Your task to perform on an android device: Go to internet settings Image 0: 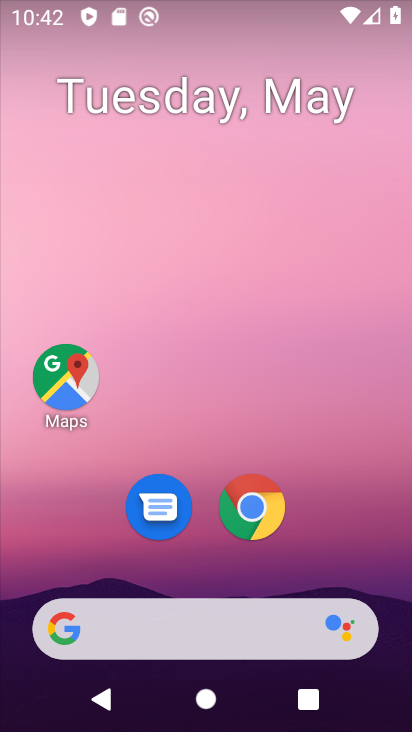
Step 0: drag from (198, 548) to (144, 195)
Your task to perform on an android device: Go to internet settings Image 1: 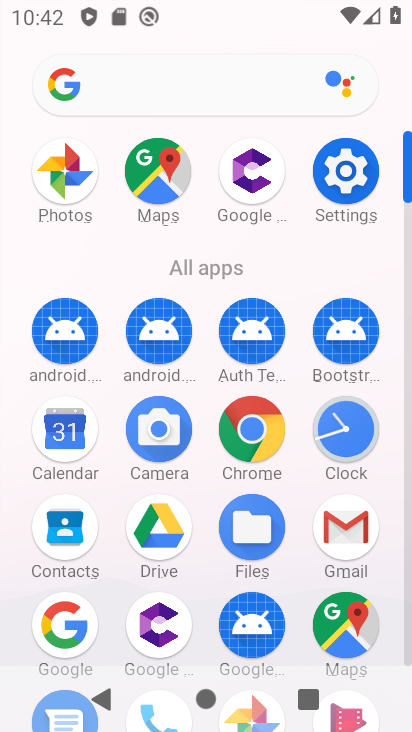
Step 1: click (338, 165)
Your task to perform on an android device: Go to internet settings Image 2: 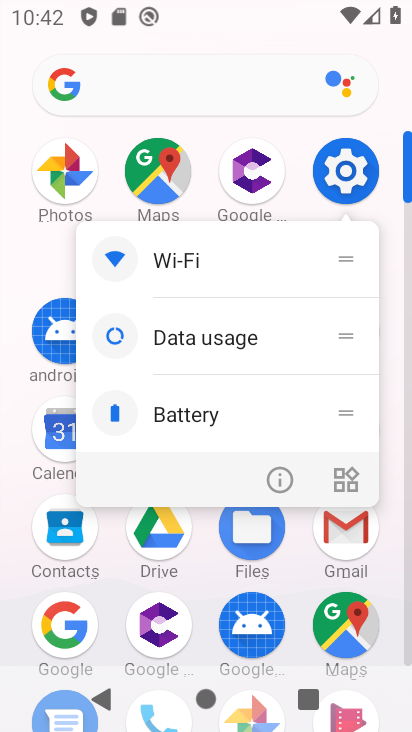
Step 2: click (340, 167)
Your task to perform on an android device: Go to internet settings Image 3: 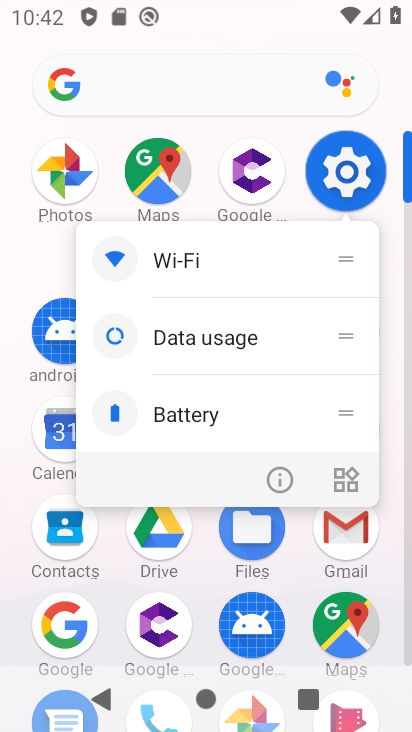
Step 3: click (341, 168)
Your task to perform on an android device: Go to internet settings Image 4: 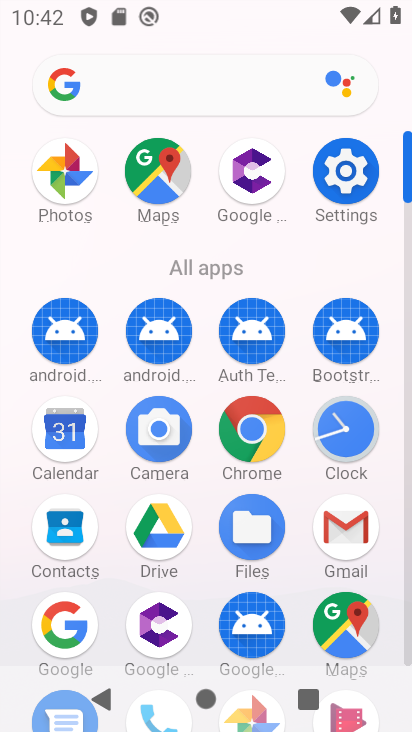
Step 4: click (341, 168)
Your task to perform on an android device: Go to internet settings Image 5: 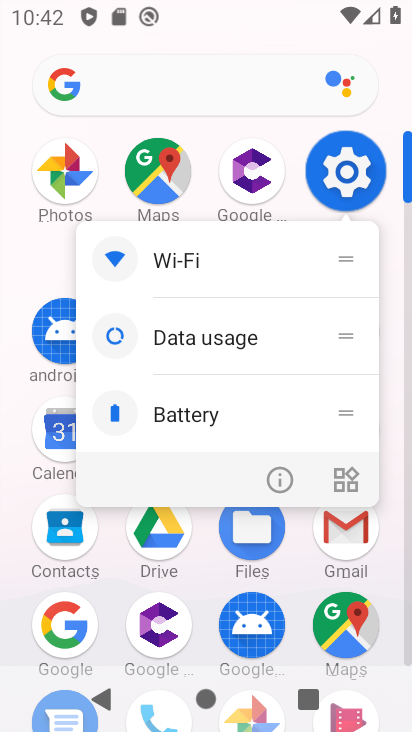
Step 5: click (342, 170)
Your task to perform on an android device: Go to internet settings Image 6: 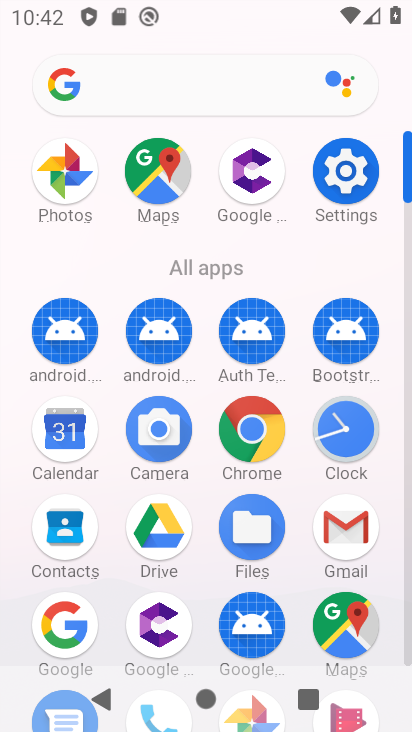
Step 6: click (344, 173)
Your task to perform on an android device: Go to internet settings Image 7: 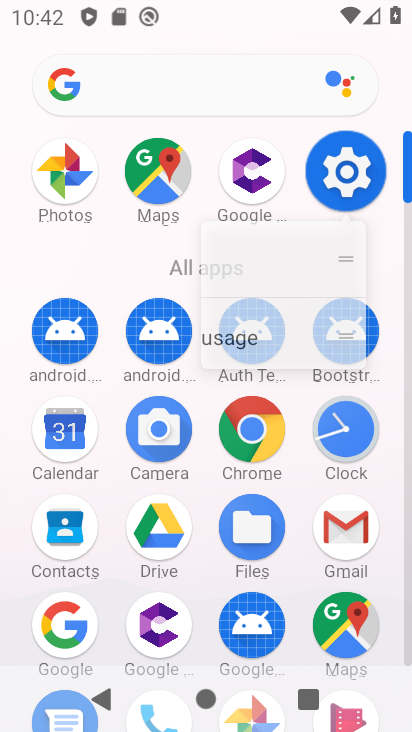
Step 7: click (344, 201)
Your task to perform on an android device: Go to internet settings Image 8: 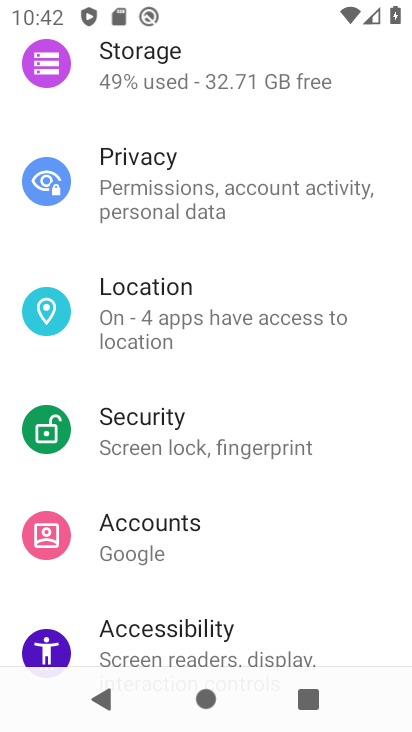
Step 8: click (257, 652)
Your task to perform on an android device: Go to internet settings Image 9: 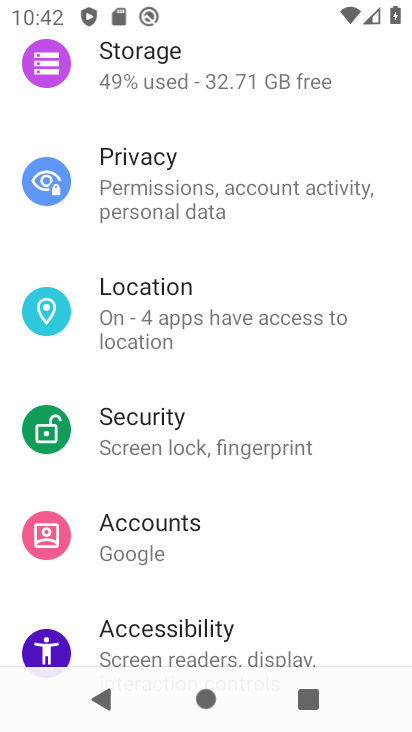
Step 9: drag from (163, 175) to (167, 648)
Your task to perform on an android device: Go to internet settings Image 10: 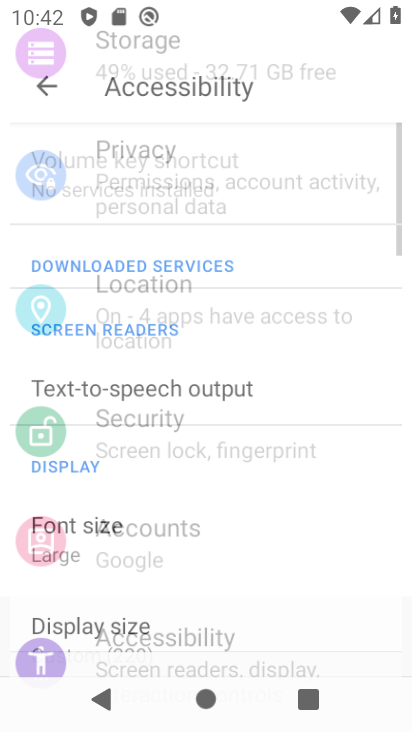
Step 10: drag from (184, 540) to (340, 693)
Your task to perform on an android device: Go to internet settings Image 11: 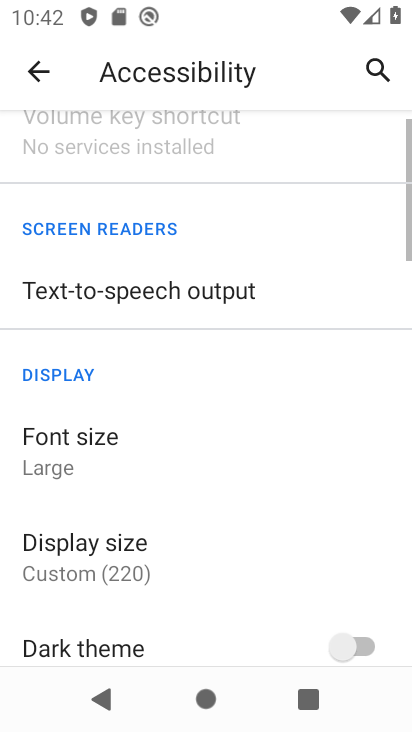
Step 11: drag from (211, 238) to (240, 662)
Your task to perform on an android device: Go to internet settings Image 12: 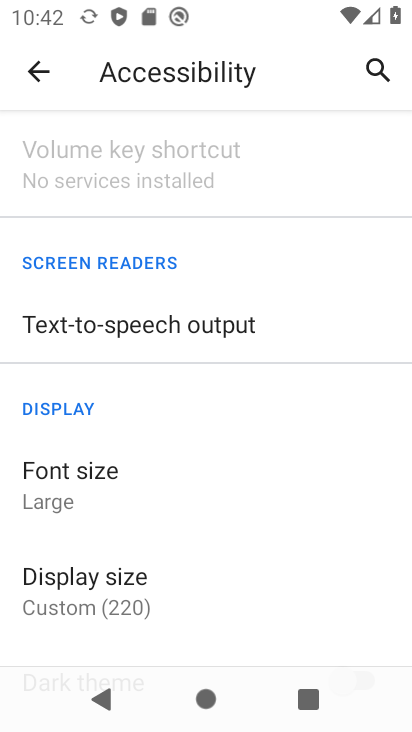
Step 12: click (36, 81)
Your task to perform on an android device: Go to internet settings Image 13: 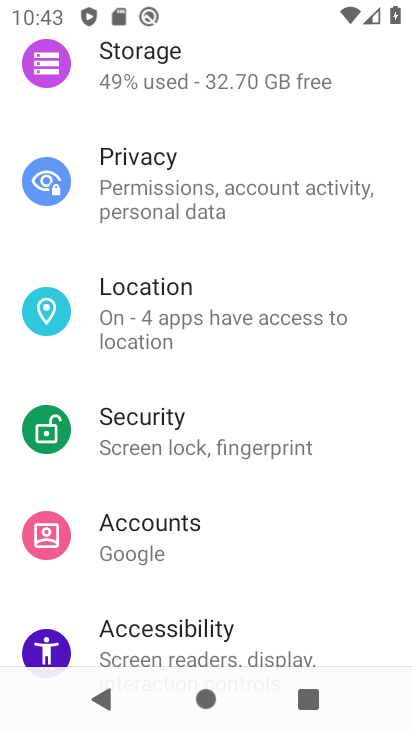
Step 13: drag from (236, 372) to (199, 487)
Your task to perform on an android device: Go to internet settings Image 14: 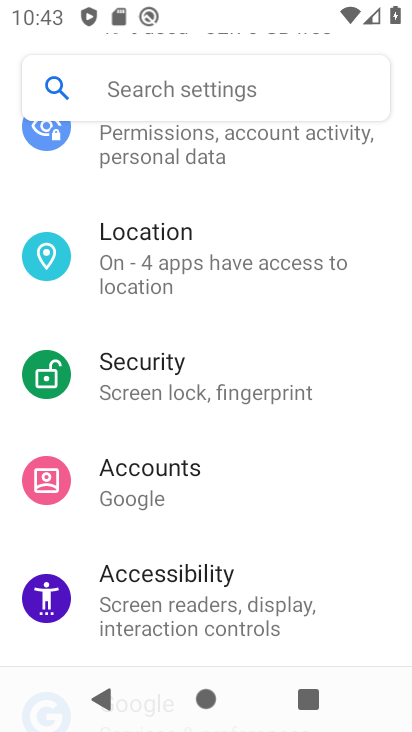
Step 14: drag from (178, 185) to (252, 702)
Your task to perform on an android device: Go to internet settings Image 15: 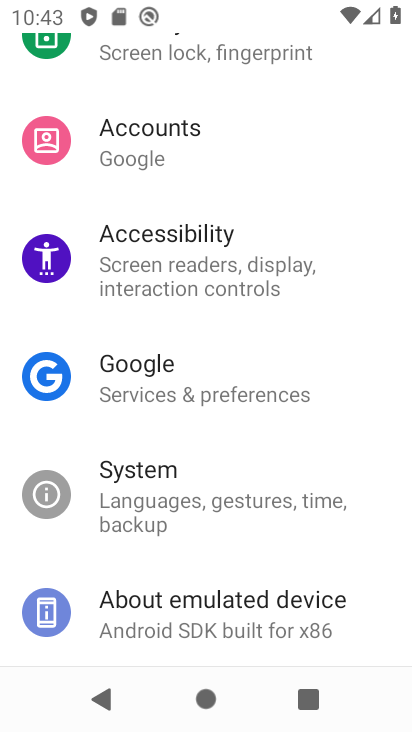
Step 15: drag from (229, 239) to (277, 616)
Your task to perform on an android device: Go to internet settings Image 16: 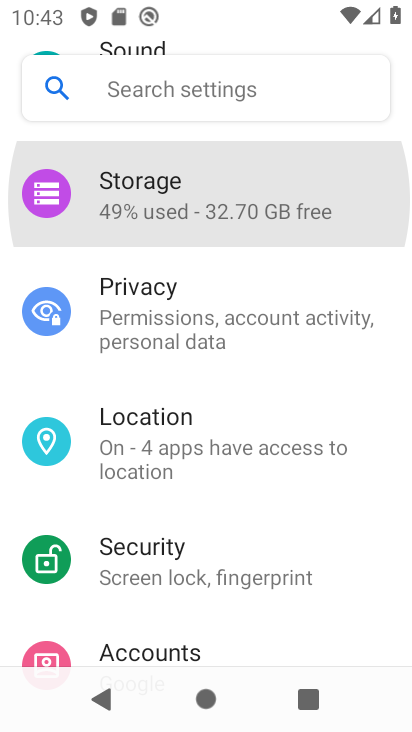
Step 16: drag from (226, 449) to (191, 603)
Your task to perform on an android device: Go to internet settings Image 17: 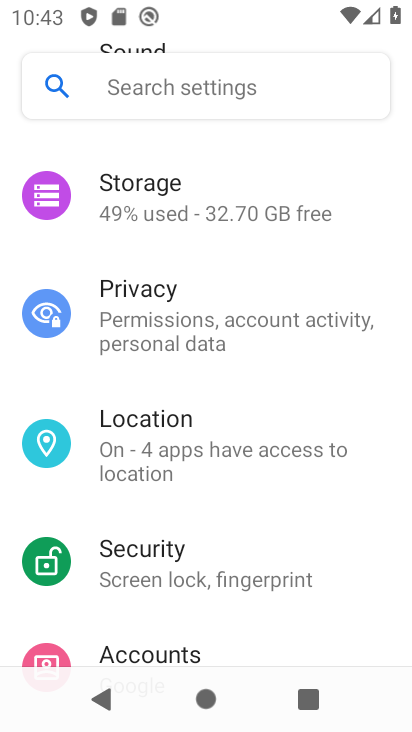
Step 17: drag from (179, 426) to (220, 579)
Your task to perform on an android device: Go to internet settings Image 18: 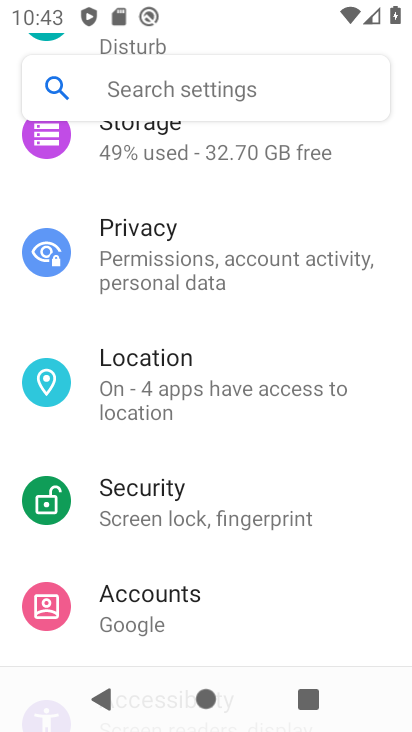
Step 18: drag from (202, 333) to (228, 698)
Your task to perform on an android device: Go to internet settings Image 19: 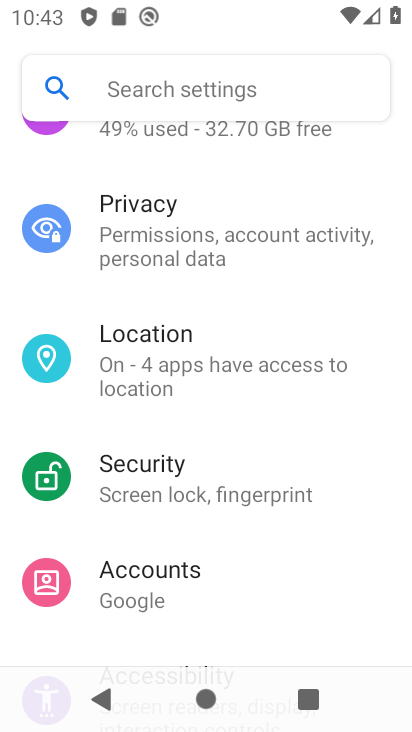
Step 19: drag from (221, 310) to (221, 443)
Your task to perform on an android device: Go to internet settings Image 20: 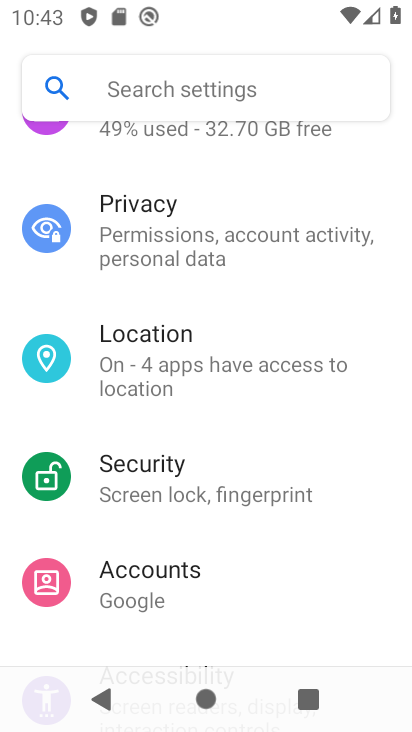
Step 20: drag from (170, 180) to (205, 524)
Your task to perform on an android device: Go to internet settings Image 21: 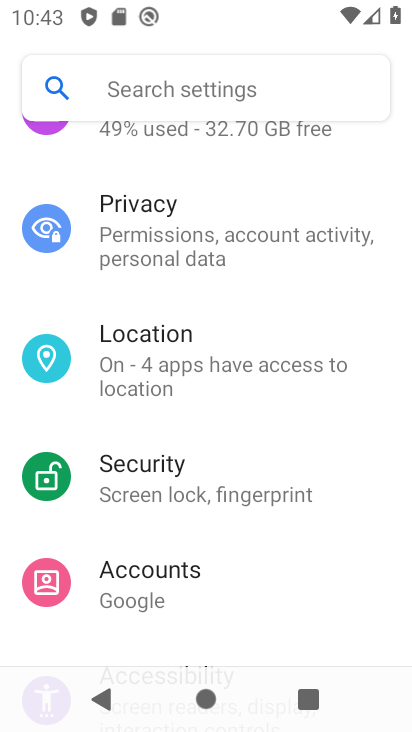
Step 21: drag from (200, 271) to (231, 530)
Your task to perform on an android device: Go to internet settings Image 22: 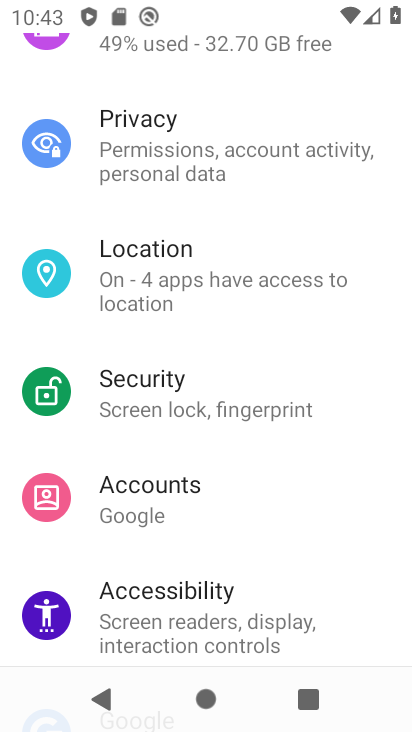
Step 22: drag from (178, 234) to (264, 560)
Your task to perform on an android device: Go to internet settings Image 23: 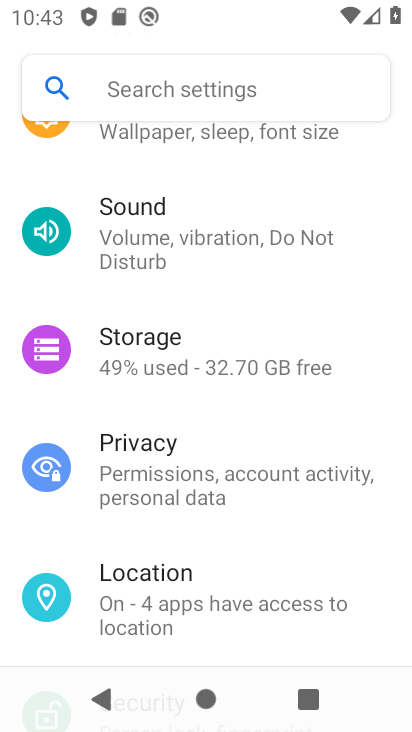
Step 23: drag from (241, 317) to (263, 513)
Your task to perform on an android device: Go to internet settings Image 24: 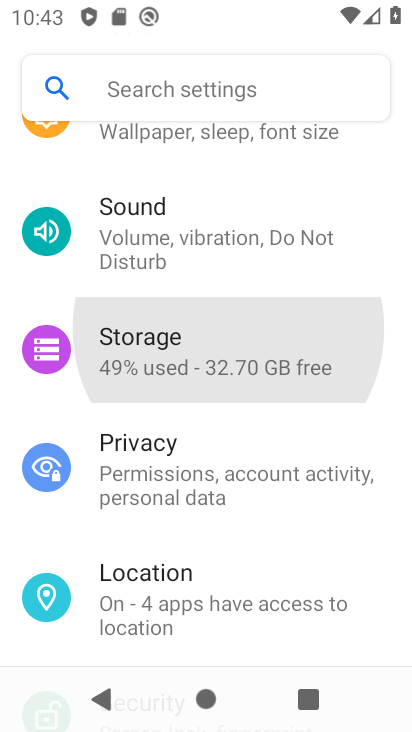
Step 24: click (268, 586)
Your task to perform on an android device: Go to internet settings Image 25: 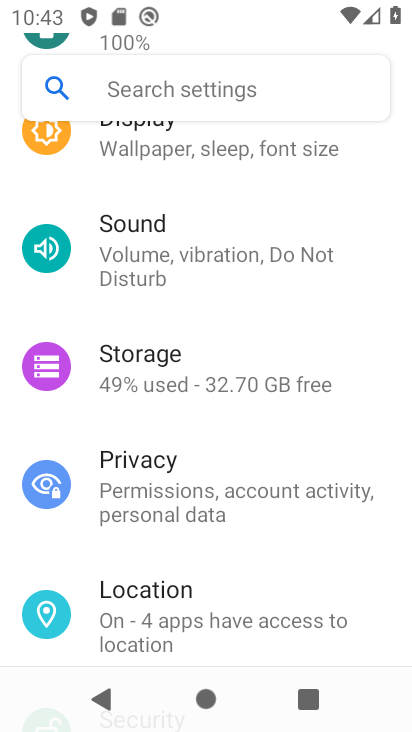
Step 25: drag from (216, 96) to (216, 535)
Your task to perform on an android device: Go to internet settings Image 26: 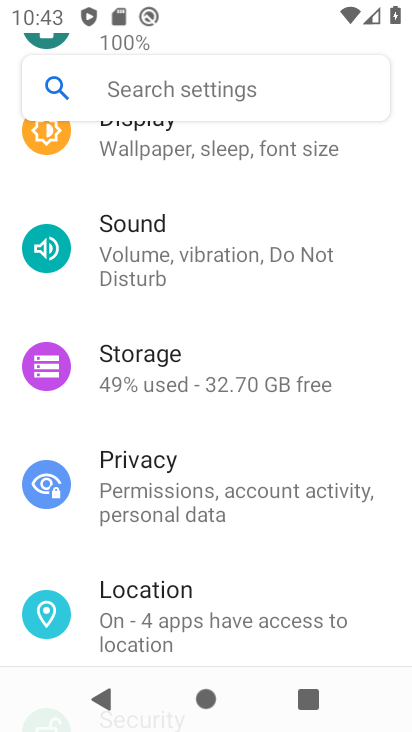
Step 26: drag from (138, 250) to (156, 508)
Your task to perform on an android device: Go to internet settings Image 27: 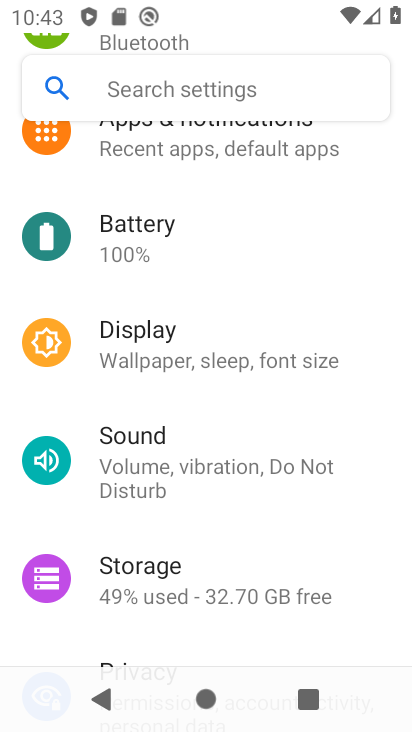
Step 27: drag from (172, 241) to (242, 681)
Your task to perform on an android device: Go to internet settings Image 28: 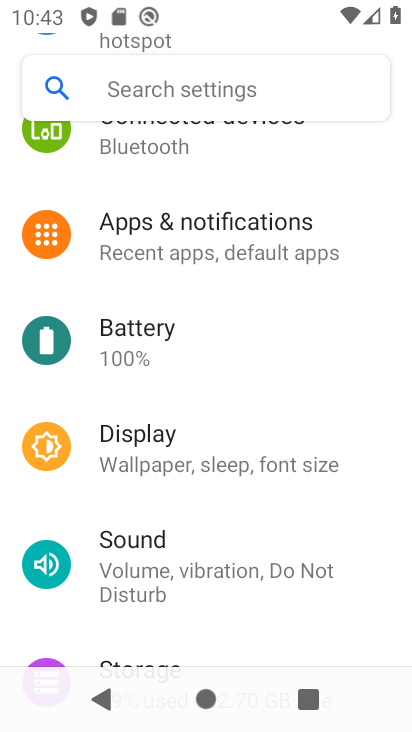
Step 28: drag from (186, 314) to (219, 558)
Your task to perform on an android device: Go to internet settings Image 29: 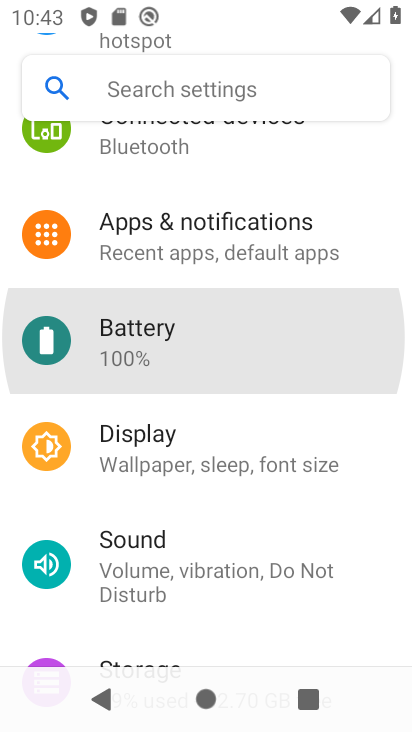
Step 29: drag from (150, 325) to (189, 573)
Your task to perform on an android device: Go to internet settings Image 30: 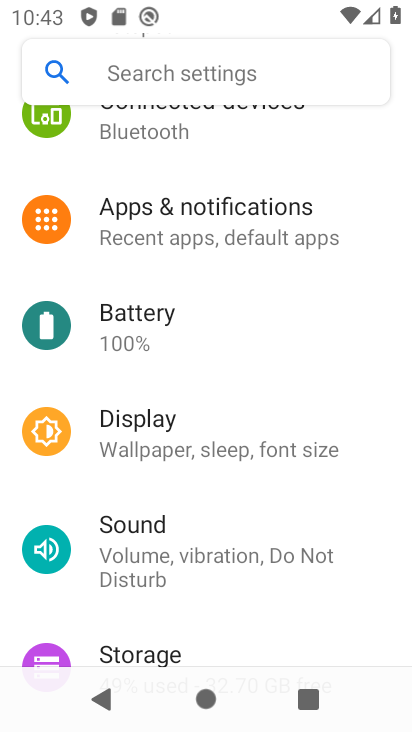
Step 30: drag from (193, 246) to (223, 465)
Your task to perform on an android device: Go to internet settings Image 31: 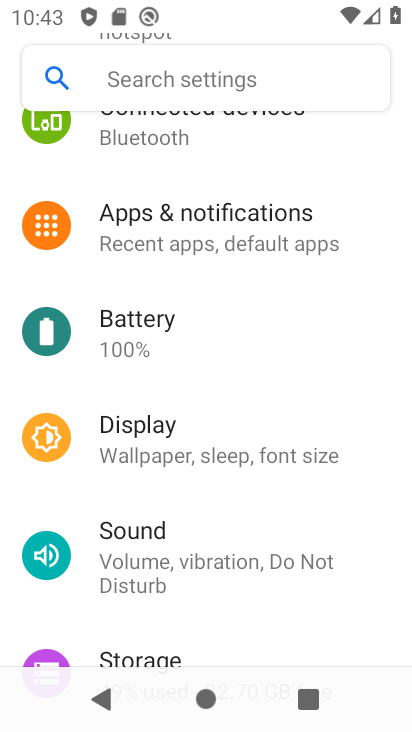
Step 31: drag from (202, 309) to (247, 541)
Your task to perform on an android device: Go to internet settings Image 32: 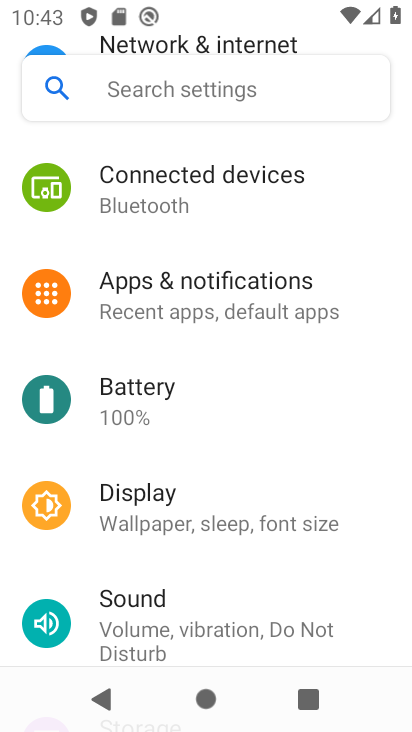
Step 32: drag from (177, 238) to (223, 486)
Your task to perform on an android device: Go to internet settings Image 33: 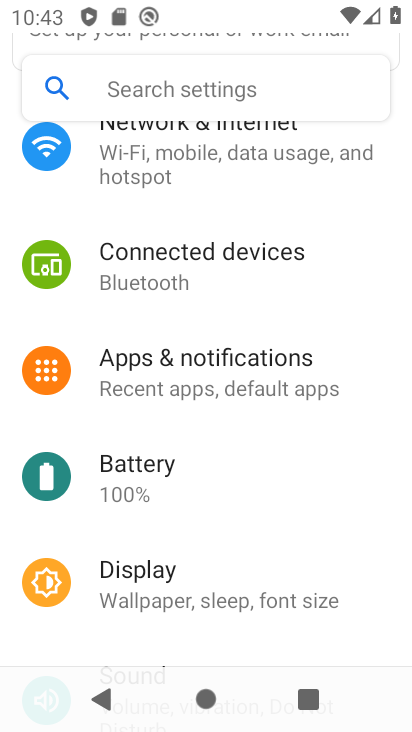
Step 33: click (190, 165)
Your task to perform on an android device: Go to internet settings Image 34: 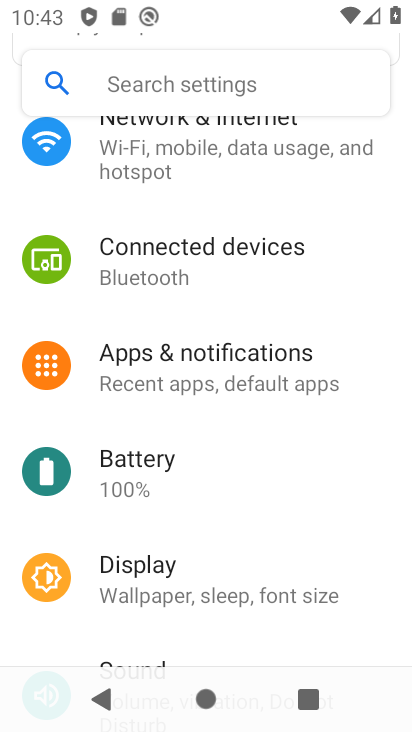
Step 34: click (189, 135)
Your task to perform on an android device: Go to internet settings Image 35: 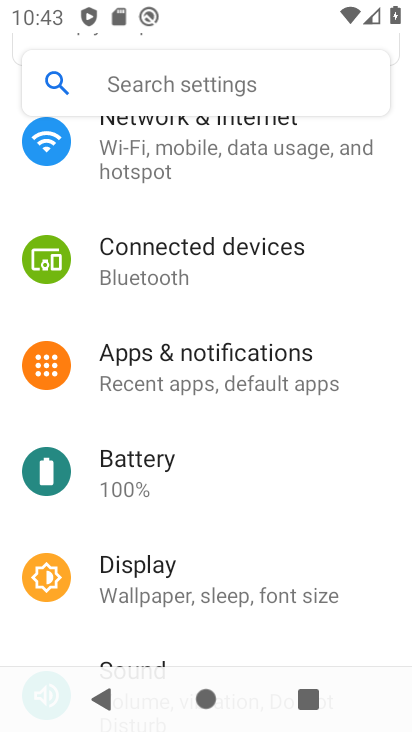
Step 35: click (189, 135)
Your task to perform on an android device: Go to internet settings Image 36: 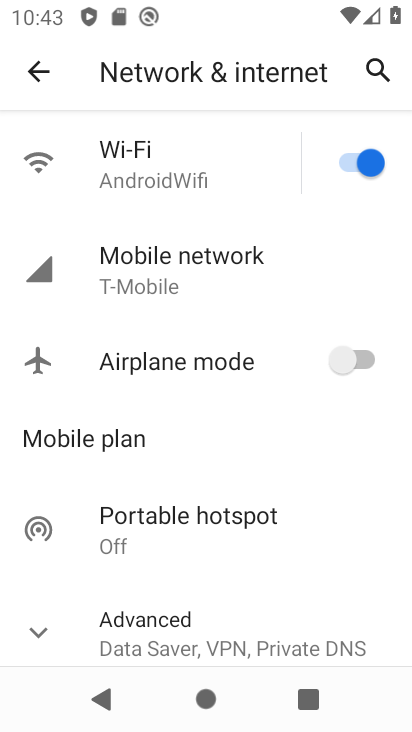
Step 36: click (138, 277)
Your task to perform on an android device: Go to internet settings Image 37: 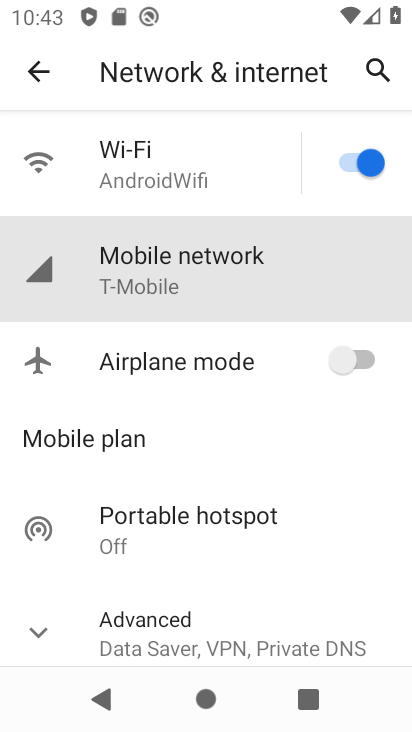
Step 37: click (144, 274)
Your task to perform on an android device: Go to internet settings Image 38: 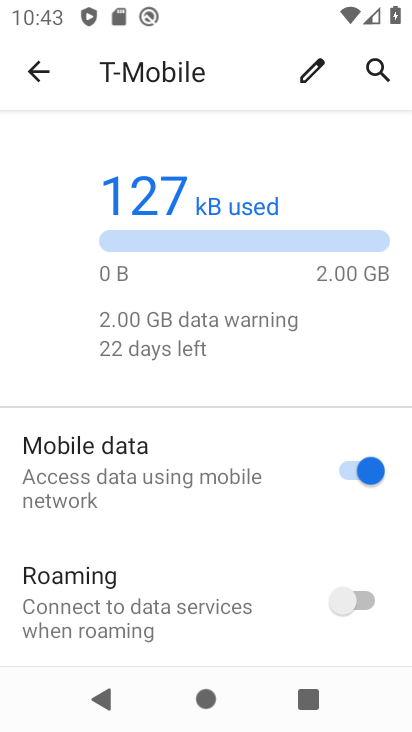
Step 38: click (38, 77)
Your task to perform on an android device: Go to internet settings Image 39: 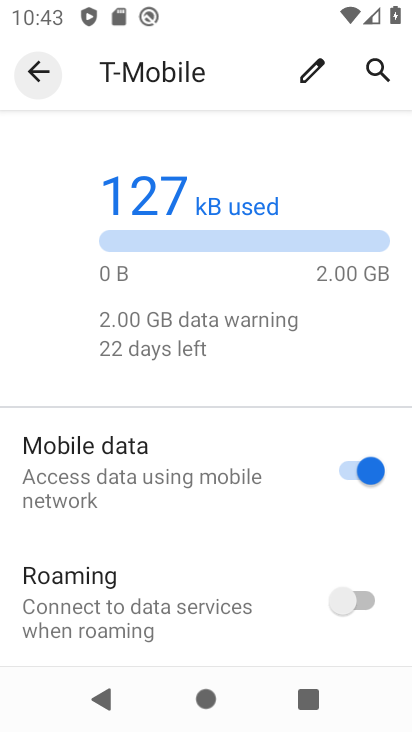
Step 39: click (47, 76)
Your task to perform on an android device: Go to internet settings Image 40: 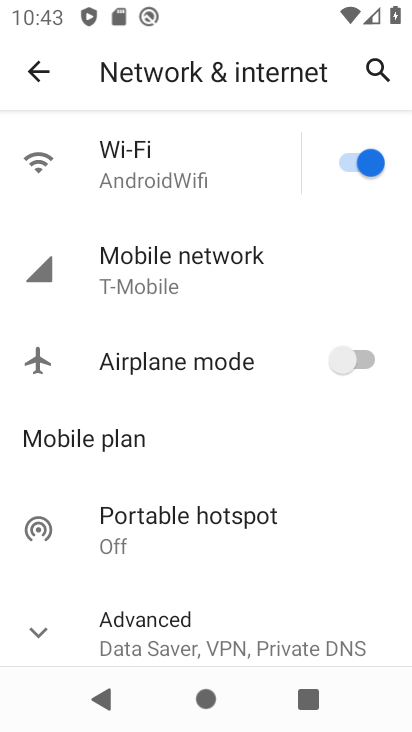
Step 40: task complete